Your task to perform on an android device: Open maps Image 0: 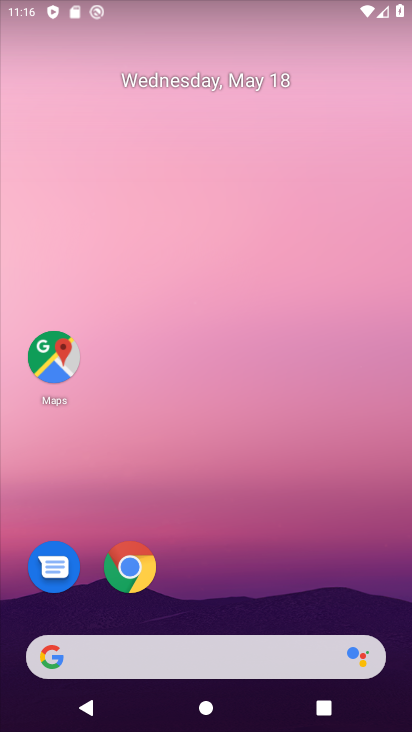
Step 0: click (57, 356)
Your task to perform on an android device: Open maps Image 1: 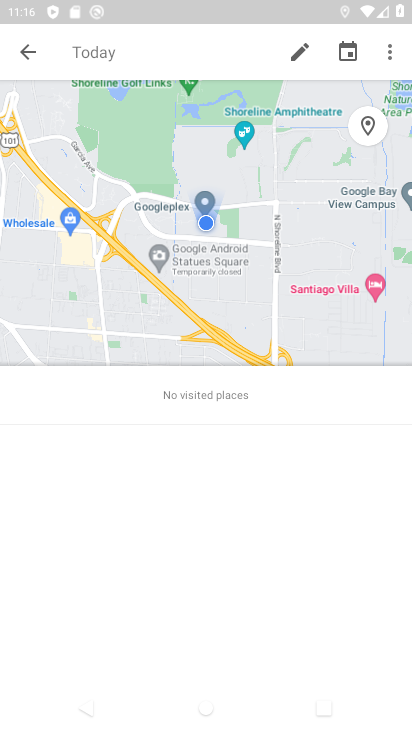
Step 1: click (28, 50)
Your task to perform on an android device: Open maps Image 2: 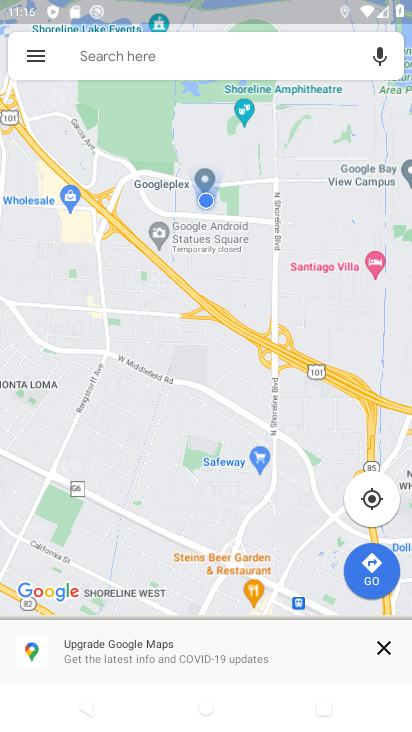
Step 2: task complete